Your task to perform on an android device: Search for sushi restaurants on Maps Image 0: 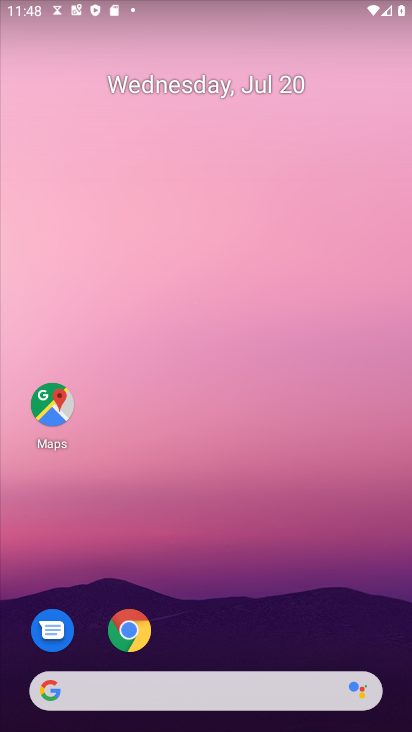
Step 0: click (52, 423)
Your task to perform on an android device: Search for sushi restaurants on Maps Image 1: 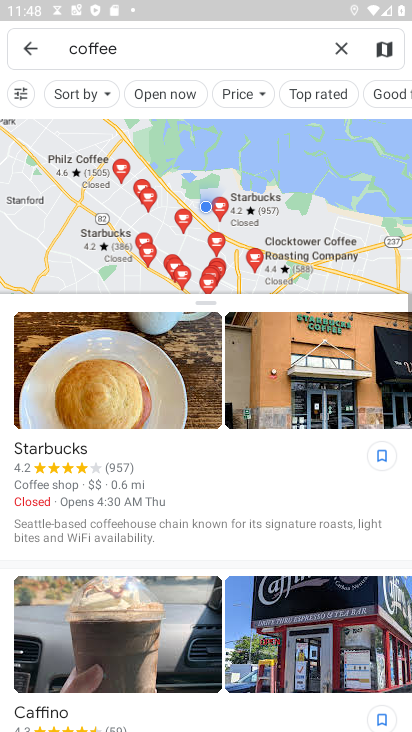
Step 1: click (335, 48)
Your task to perform on an android device: Search for sushi restaurants on Maps Image 2: 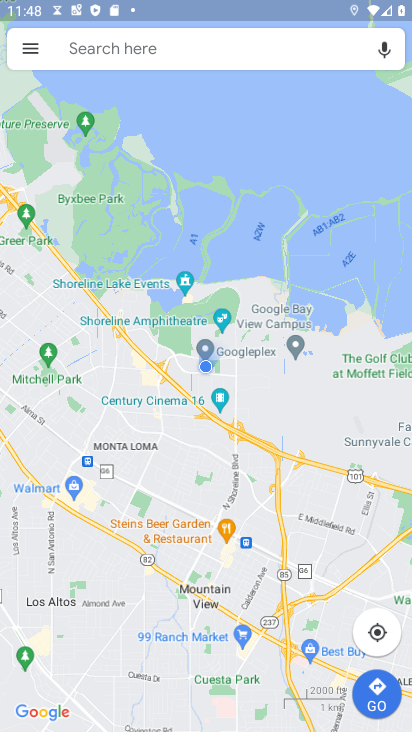
Step 2: click (87, 45)
Your task to perform on an android device: Search for sushi restaurants on Maps Image 3: 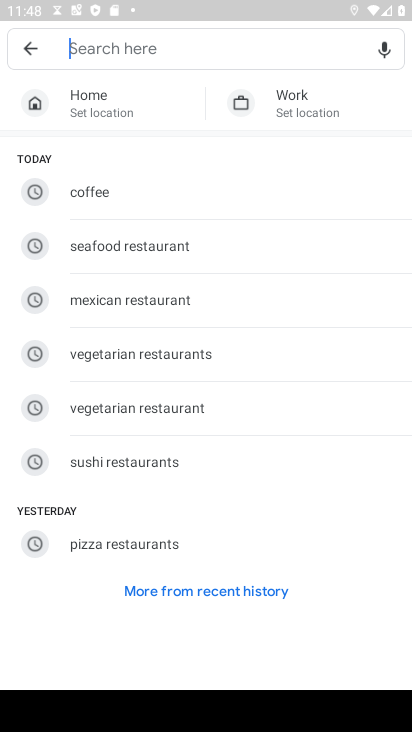
Step 3: click (157, 464)
Your task to perform on an android device: Search for sushi restaurants on Maps Image 4: 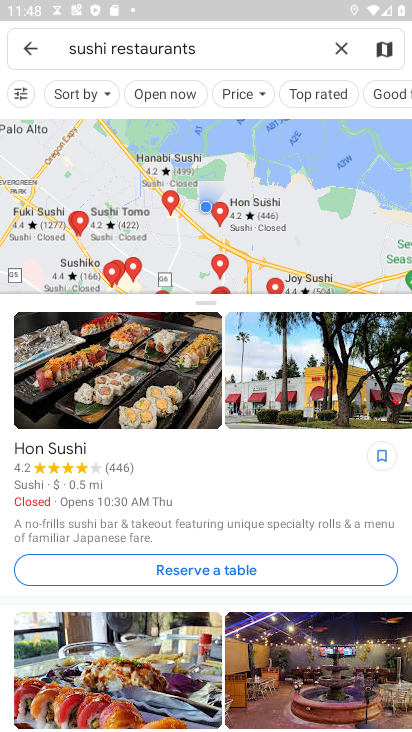
Step 4: task complete